Your task to perform on an android device: Go to battery settings Image 0: 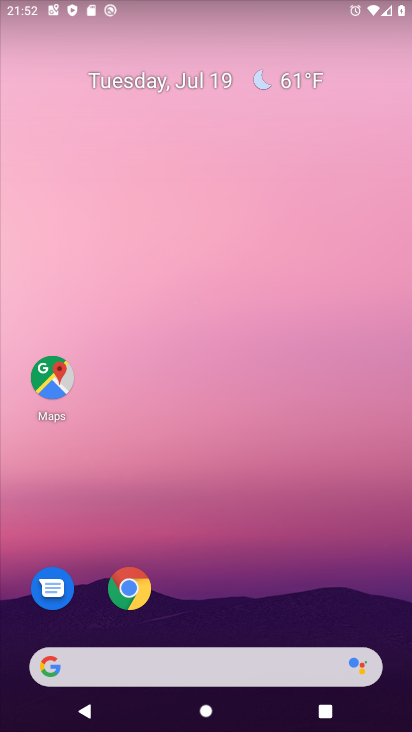
Step 0: press home button
Your task to perform on an android device: Go to battery settings Image 1: 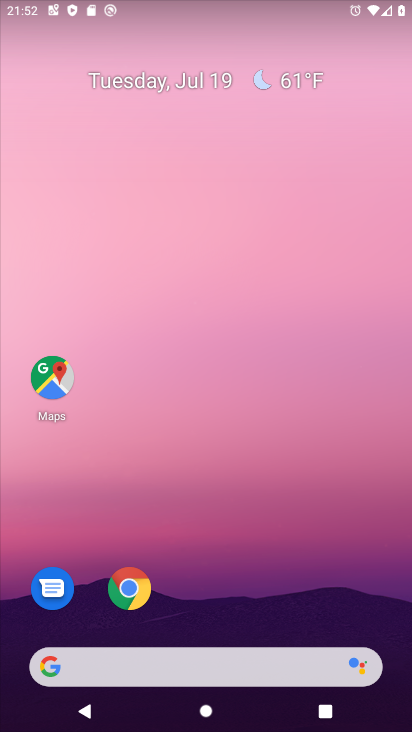
Step 1: drag from (220, 619) to (255, 124)
Your task to perform on an android device: Go to battery settings Image 2: 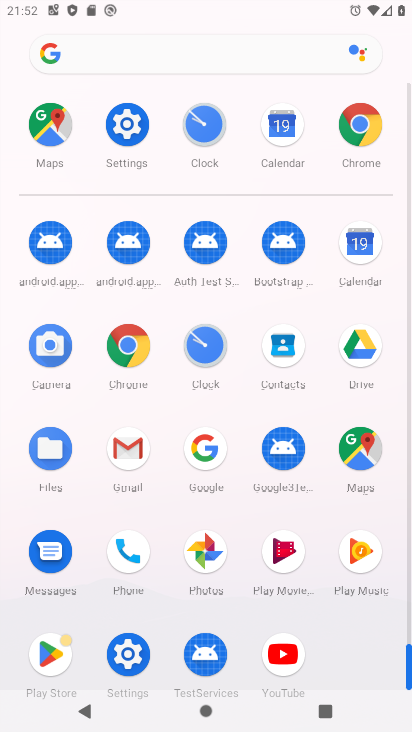
Step 2: click (124, 644)
Your task to perform on an android device: Go to battery settings Image 3: 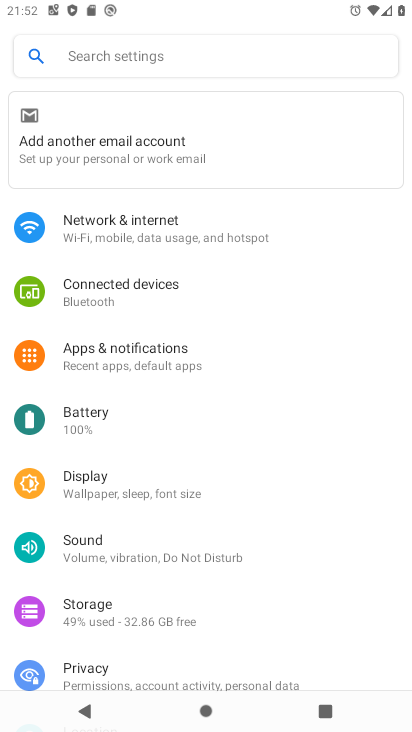
Step 3: click (121, 412)
Your task to perform on an android device: Go to battery settings Image 4: 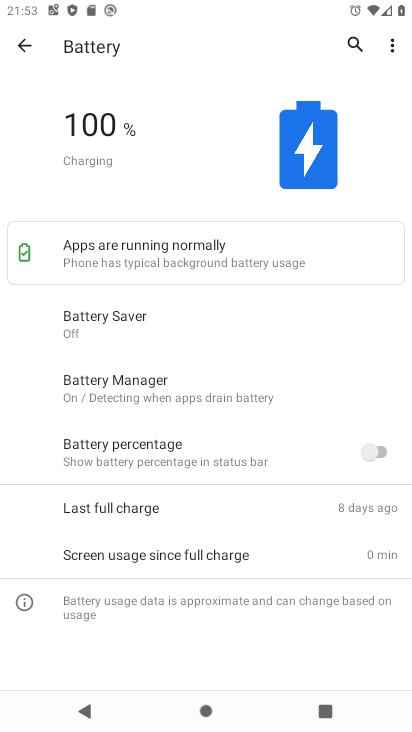
Step 4: task complete